Your task to perform on an android device: turn off priority inbox in the gmail app Image 0: 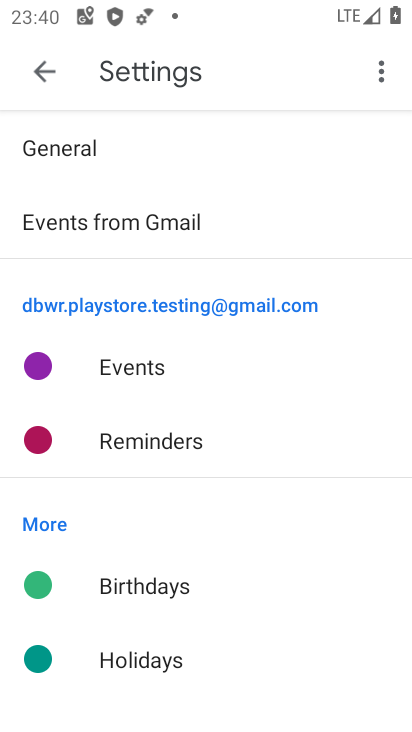
Step 0: press home button
Your task to perform on an android device: turn off priority inbox in the gmail app Image 1: 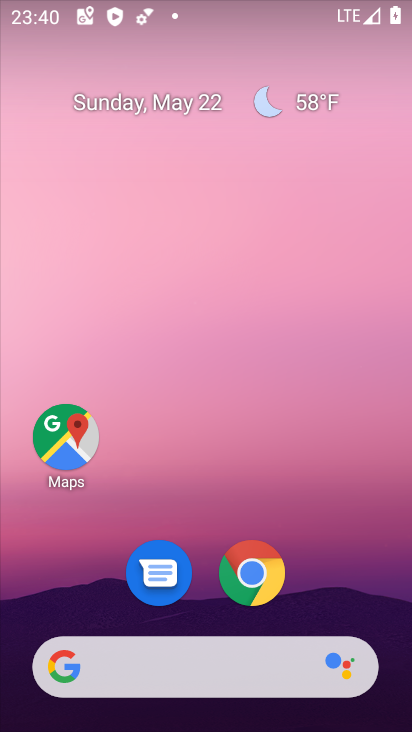
Step 1: drag from (232, 589) to (254, 11)
Your task to perform on an android device: turn off priority inbox in the gmail app Image 2: 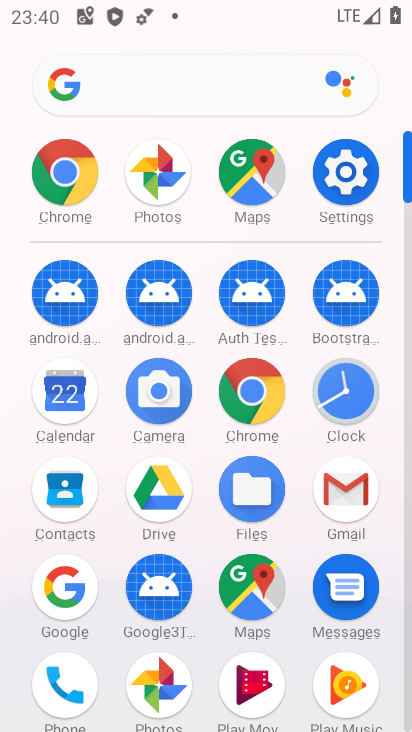
Step 2: click (349, 500)
Your task to perform on an android device: turn off priority inbox in the gmail app Image 3: 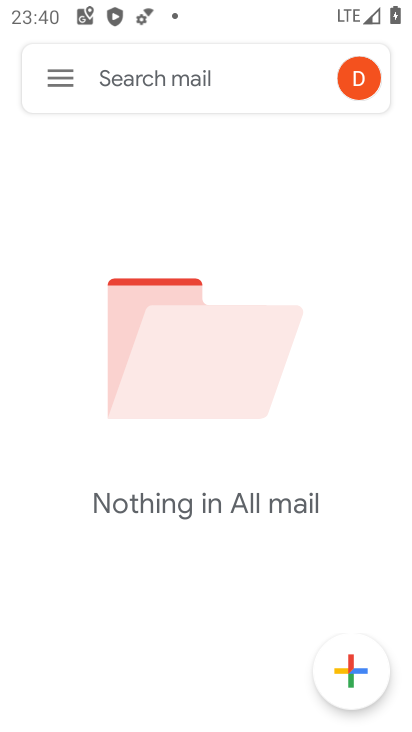
Step 3: click (64, 76)
Your task to perform on an android device: turn off priority inbox in the gmail app Image 4: 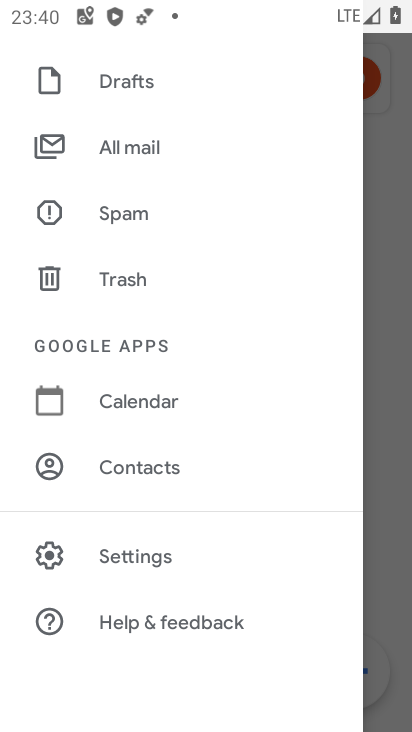
Step 4: click (147, 566)
Your task to perform on an android device: turn off priority inbox in the gmail app Image 5: 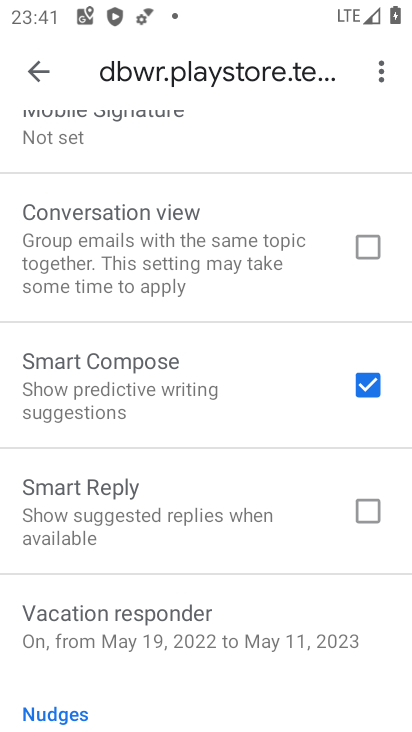
Step 5: drag from (176, 282) to (187, 507)
Your task to perform on an android device: turn off priority inbox in the gmail app Image 6: 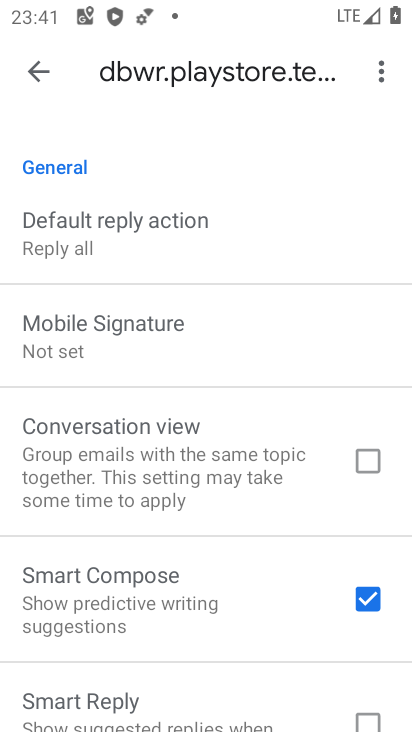
Step 6: drag from (191, 275) to (173, 466)
Your task to perform on an android device: turn off priority inbox in the gmail app Image 7: 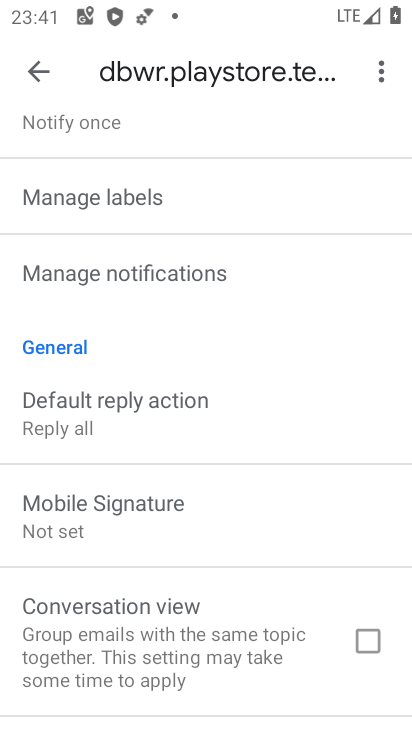
Step 7: drag from (193, 296) to (181, 527)
Your task to perform on an android device: turn off priority inbox in the gmail app Image 8: 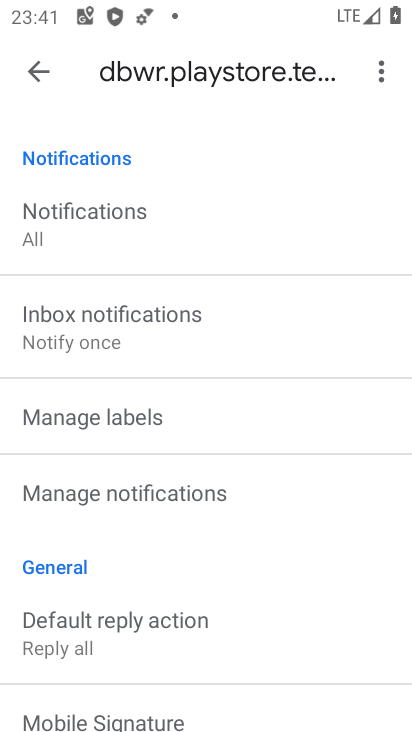
Step 8: drag from (170, 282) to (165, 569)
Your task to perform on an android device: turn off priority inbox in the gmail app Image 9: 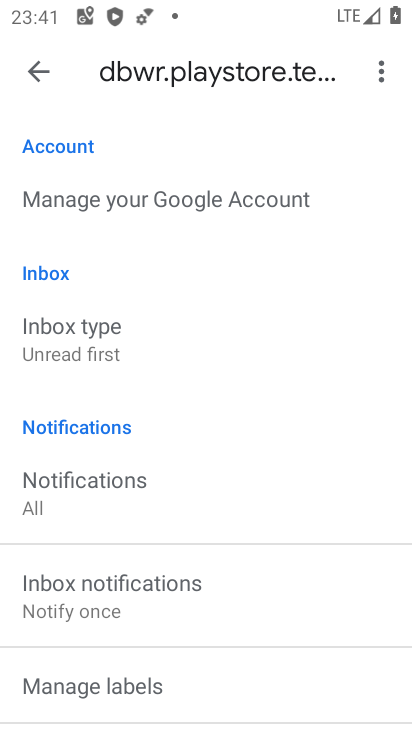
Step 9: click (91, 338)
Your task to perform on an android device: turn off priority inbox in the gmail app Image 10: 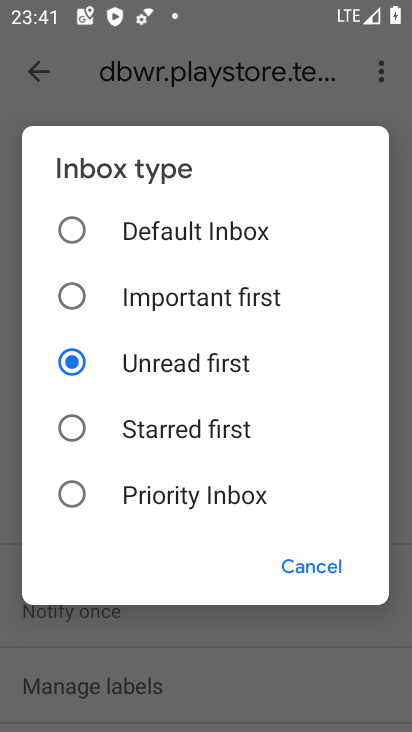
Step 10: click (92, 496)
Your task to perform on an android device: turn off priority inbox in the gmail app Image 11: 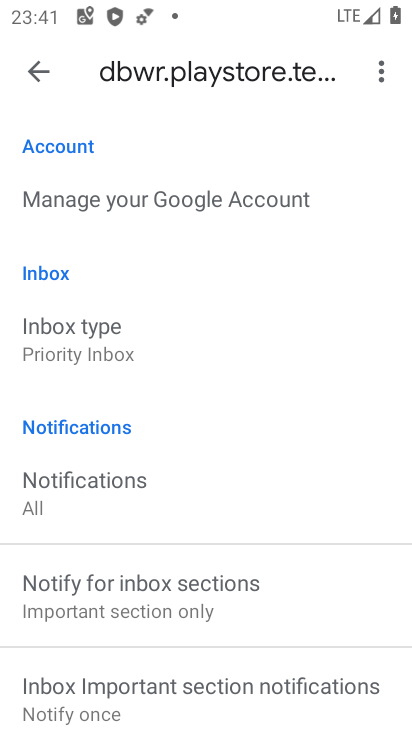
Step 11: task complete